Your task to perform on an android device: turn pop-ups on in chrome Image 0: 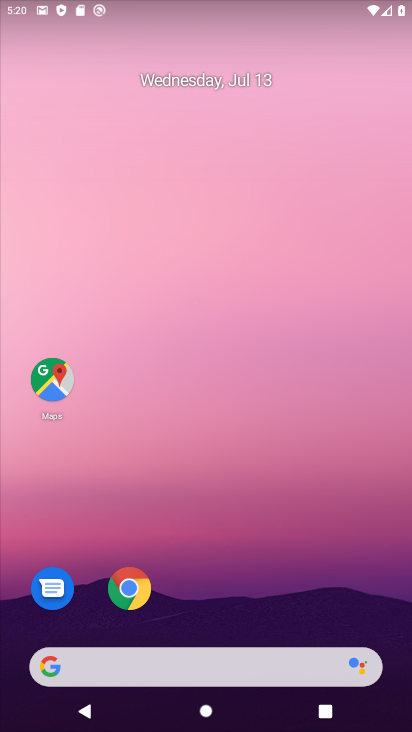
Step 0: drag from (184, 578) to (224, 227)
Your task to perform on an android device: turn pop-ups on in chrome Image 1: 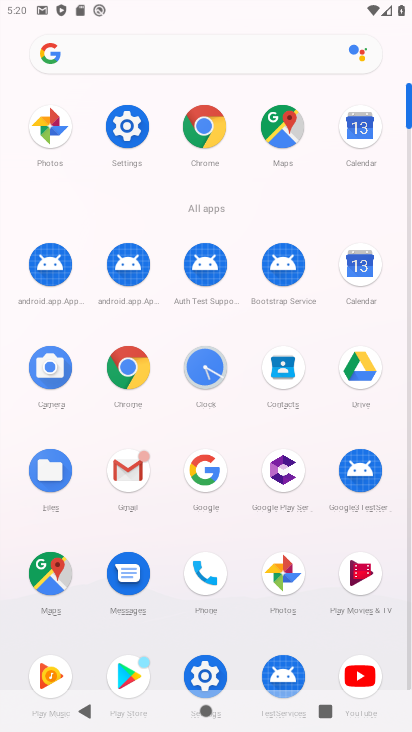
Step 1: click (195, 127)
Your task to perform on an android device: turn pop-ups on in chrome Image 2: 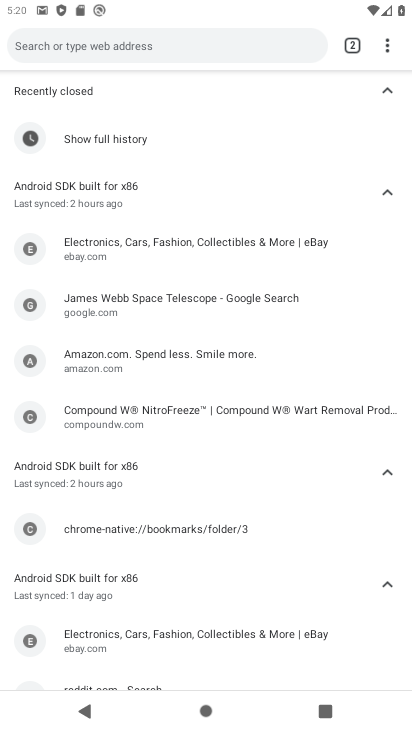
Step 2: click (391, 48)
Your task to perform on an android device: turn pop-ups on in chrome Image 3: 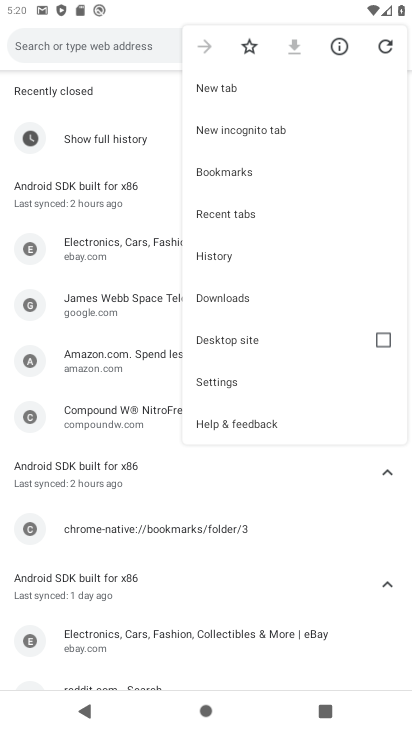
Step 3: click (223, 383)
Your task to perform on an android device: turn pop-ups on in chrome Image 4: 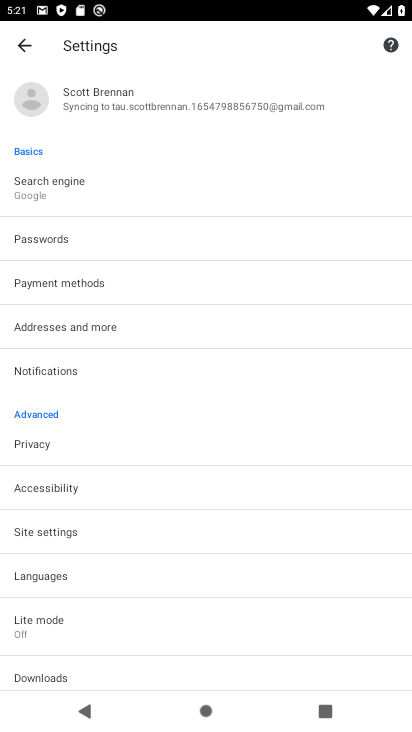
Step 4: click (41, 533)
Your task to perform on an android device: turn pop-ups on in chrome Image 5: 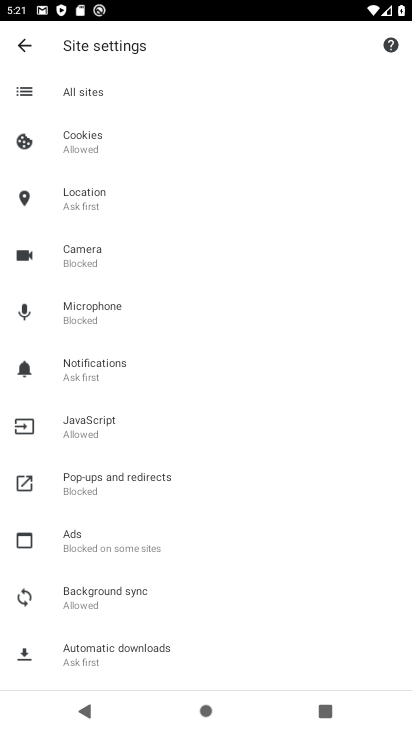
Step 5: click (148, 486)
Your task to perform on an android device: turn pop-ups on in chrome Image 6: 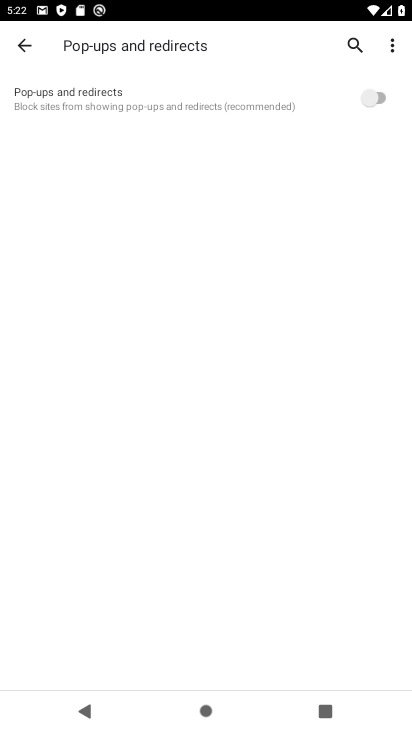
Step 6: click (377, 95)
Your task to perform on an android device: turn pop-ups on in chrome Image 7: 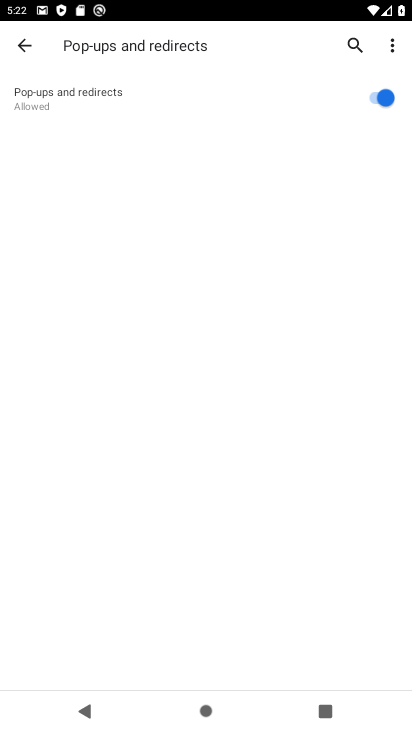
Step 7: task complete